Your task to perform on an android device: Go to display settings Image 0: 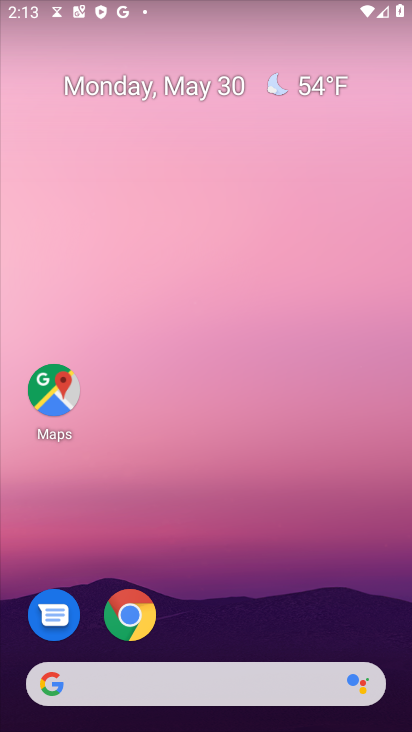
Step 0: drag from (288, 504) to (225, 92)
Your task to perform on an android device: Go to display settings Image 1: 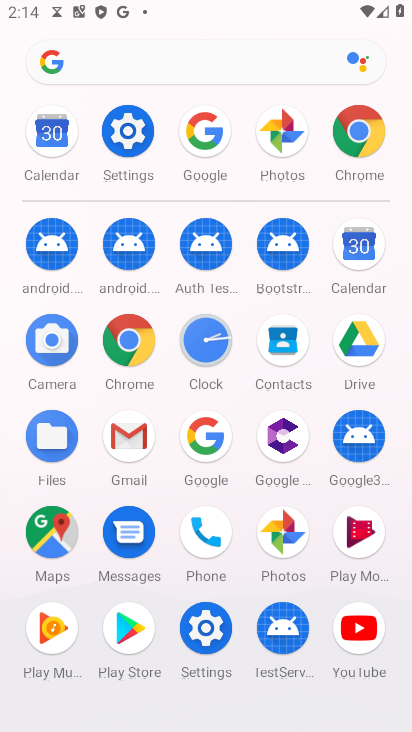
Step 1: click (103, 124)
Your task to perform on an android device: Go to display settings Image 2: 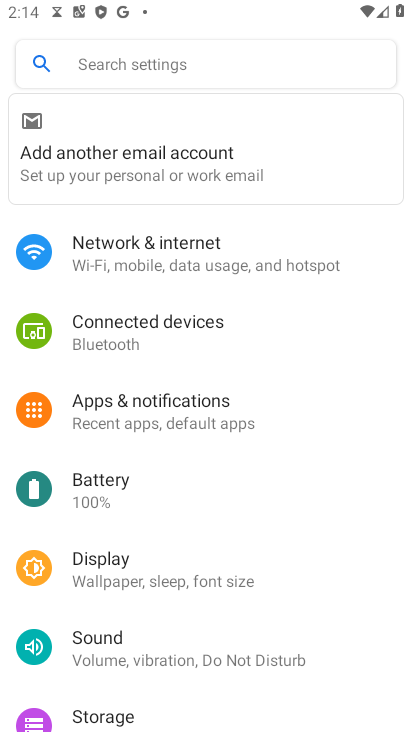
Step 2: click (121, 599)
Your task to perform on an android device: Go to display settings Image 3: 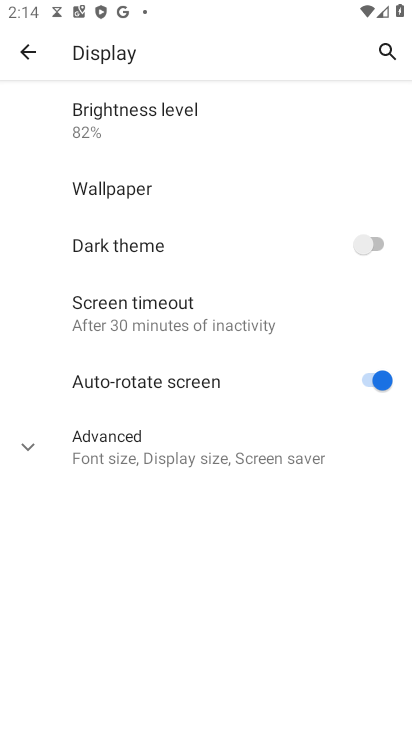
Step 3: task complete